Your task to perform on an android device: change alarm snooze length Image 0: 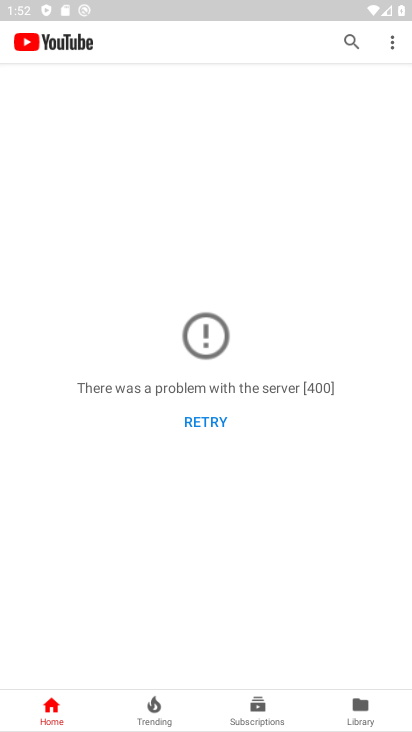
Step 0: press home button
Your task to perform on an android device: change alarm snooze length Image 1: 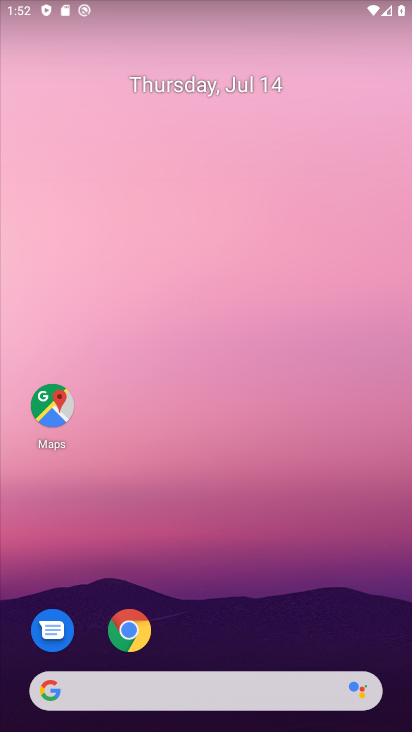
Step 1: drag from (200, 675) to (233, 181)
Your task to perform on an android device: change alarm snooze length Image 2: 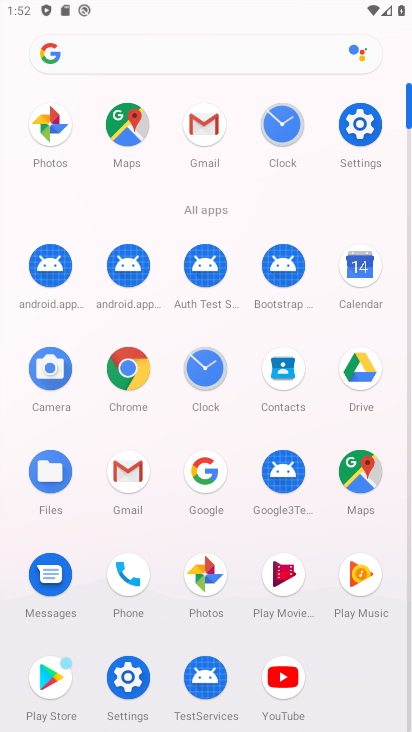
Step 2: click (202, 375)
Your task to perform on an android device: change alarm snooze length Image 3: 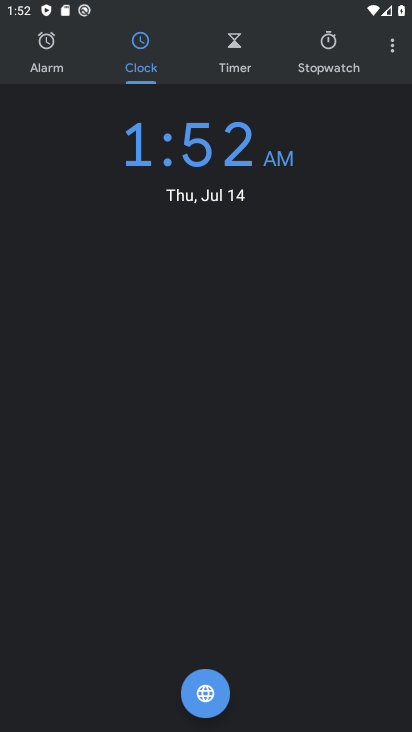
Step 3: click (382, 26)
Your task to perform on an android device: change alarm snooze length Image 4: 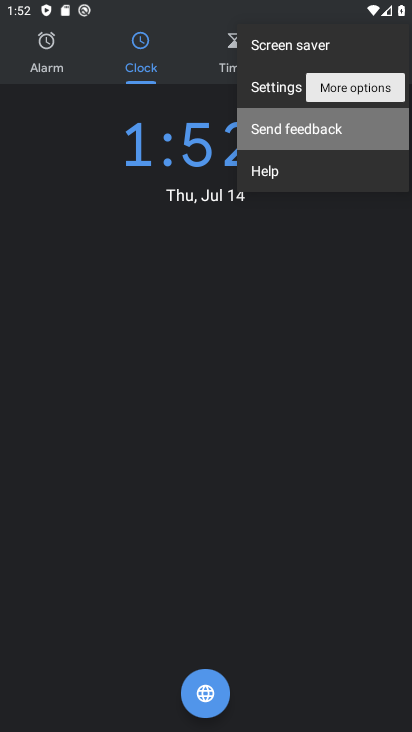
Step 4: click (389, 32)
Your task to perform on an android device: change alarm snooze length Image 5: 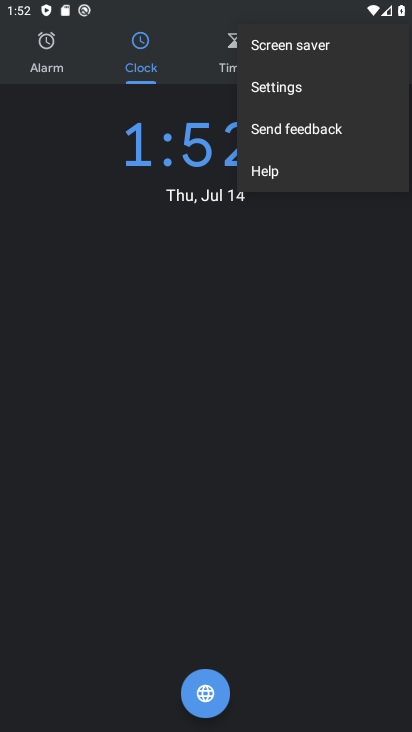
Step 5: click (332, 95)
Your task to perform on an android device: change alarm snooze length Image 6: 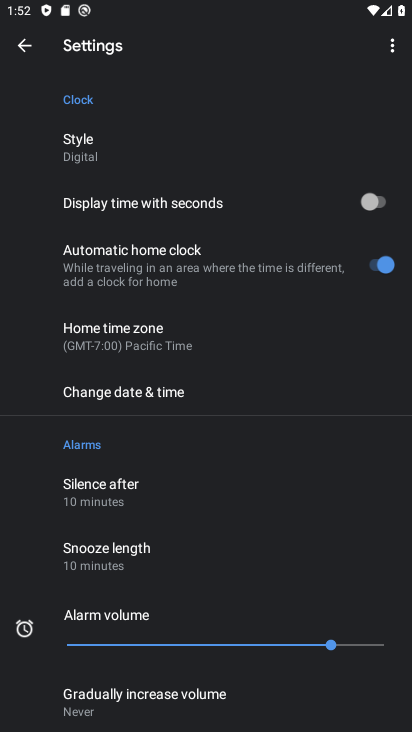
Step 6: click (187, 573)
Your task to perform on an android device: change alarm snooze length Image 7: 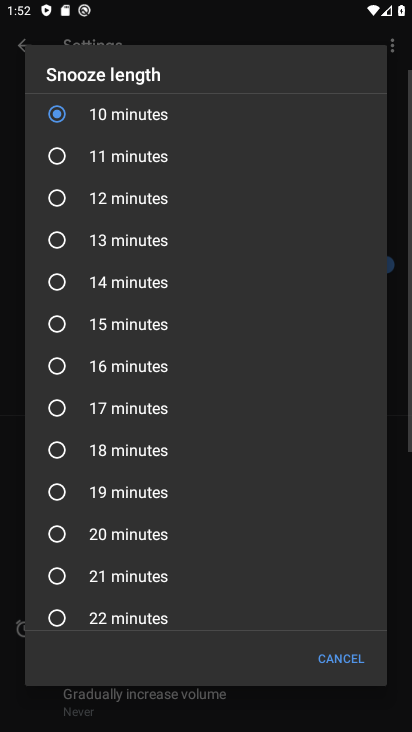
Step 7: click (111, 525)
Your task to perform on an android device: change alarm snooze length Image 8: 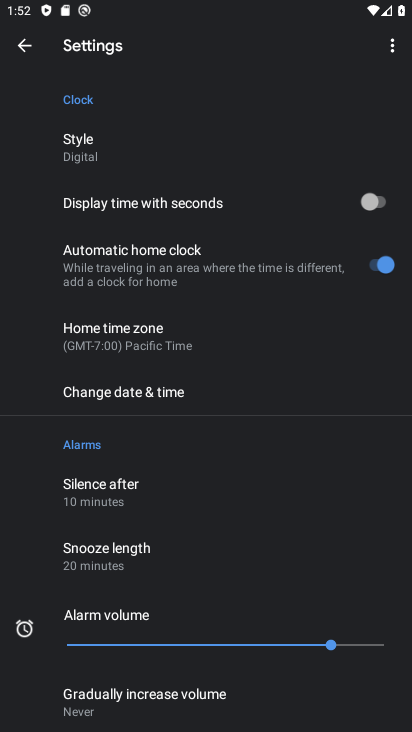
Step 8: task complete